Your task to perform on an android device: Open the phone app and click the voicemail tab. Image 0: 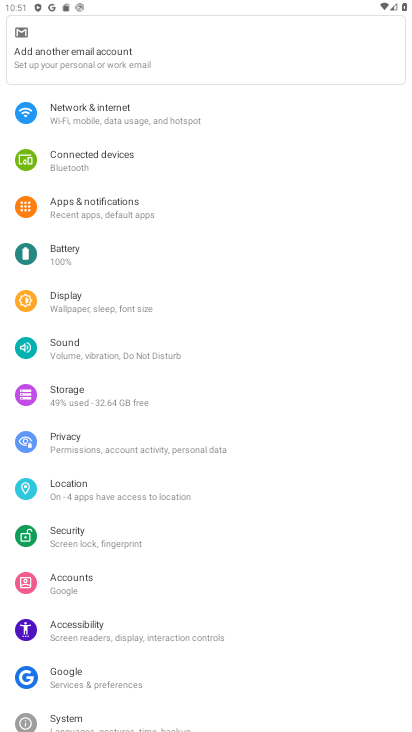
Step 0: press home button
Your task to perform on an android device: Open the phone app and click the voicemail tab. Image 1: 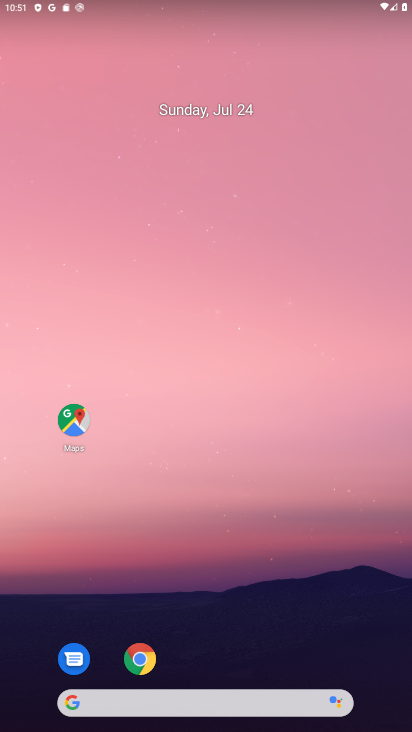
Step 1: drag from (198, 587) to (336, 225)
Your task to perform on an android device: Open the phone app and click the voicemail tab. Image 2: 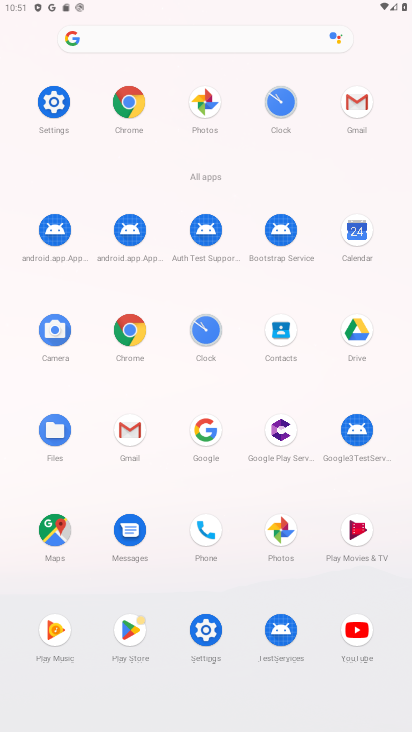
Step 2: click (204, 530)
Your task to perform on an android device: Open the phone app and click the voicemail tab. Image 3: 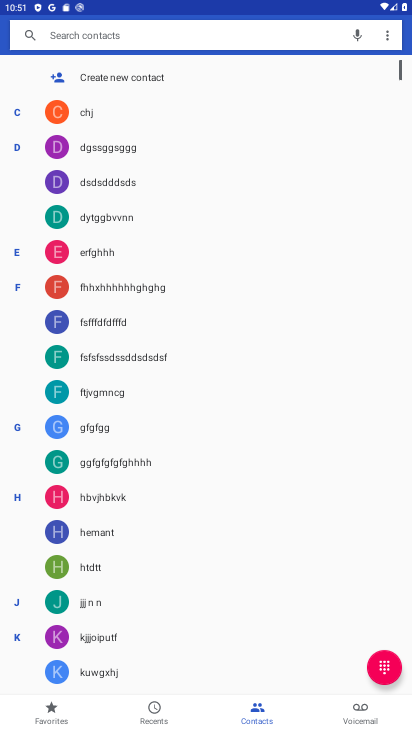
Step 3: click (353, 711)
Your task to perform on an android device: Open the phone app and click the voicemail tab. Image 4: 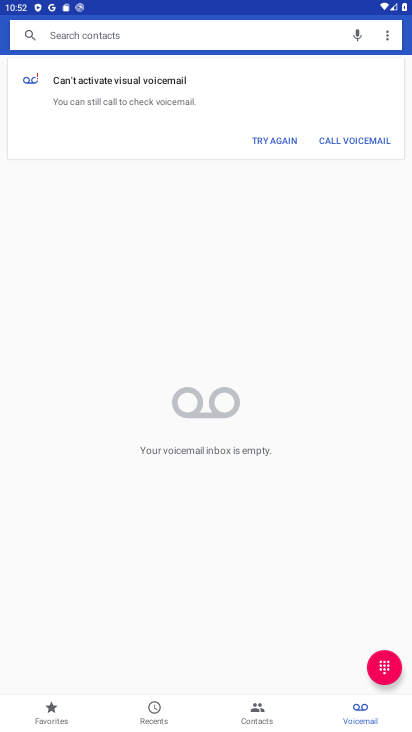
Step 4: click (363, 648)
Your task to perform on an android device: Open the phone app and click the voicemail tab. Image 5: 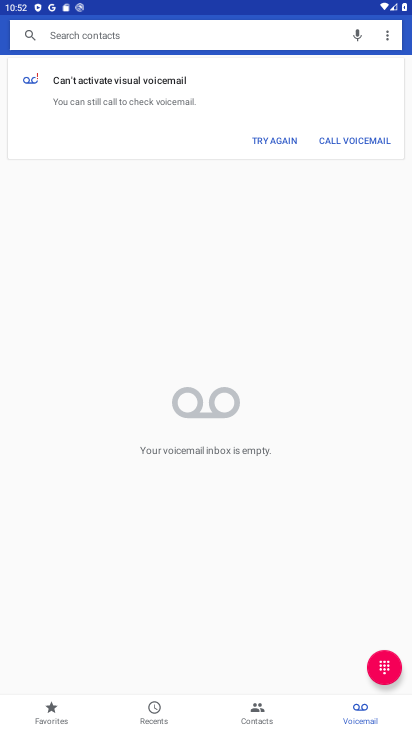
Step 5: task complete